Your task to perform on an android device: Open maps Image 0: 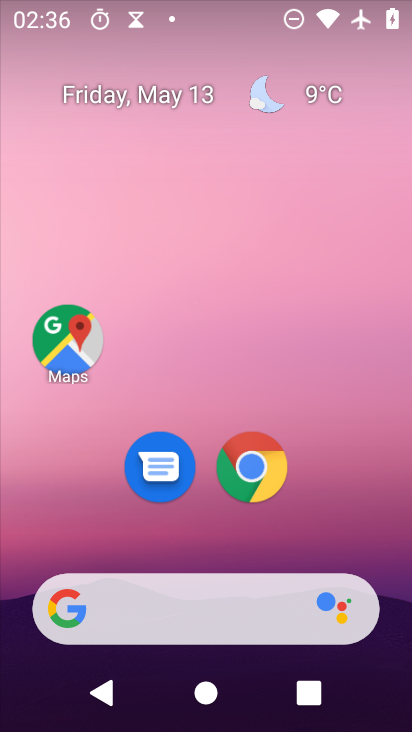
Step 0: click (73, 340)
Your task to perform on an android device: Open maps Image 1: 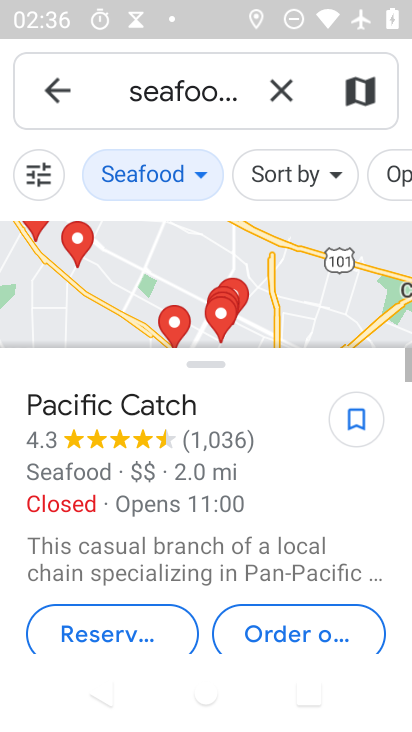
Step 1: task complete